Your task to perform on an android device: delete browsing data in the chrome app Image 0: 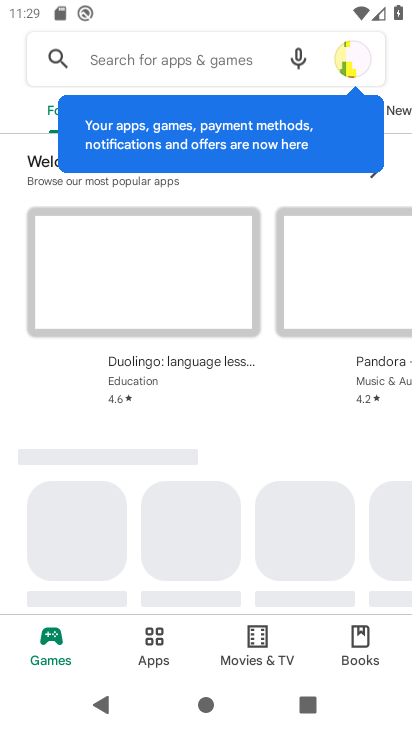
Step 0: press home button
Your task to perform on an android device: delete browsing data in the chrome app Image 1: 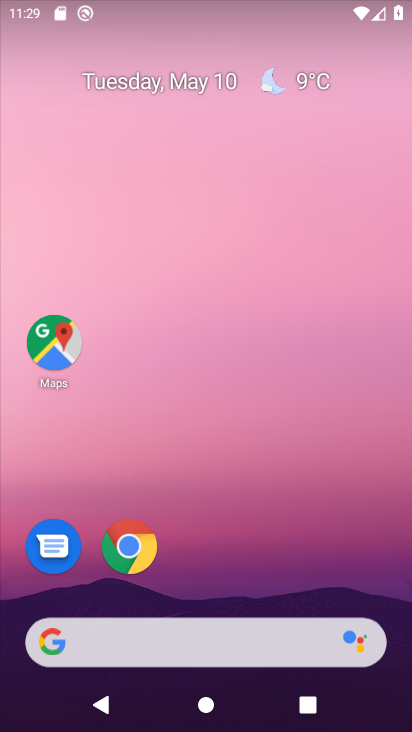
Step 1: drag from (367, 569) to (334, 221)
Your task to perform on an android device: delete browsing data in the chrome app Image 2: 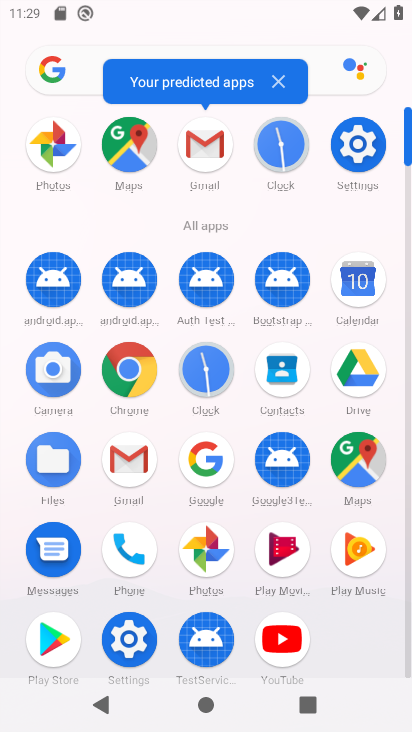
Step 2: click (122, 384)
Your task to perform on an android device: delete browsing data in the chrome app Image 3: 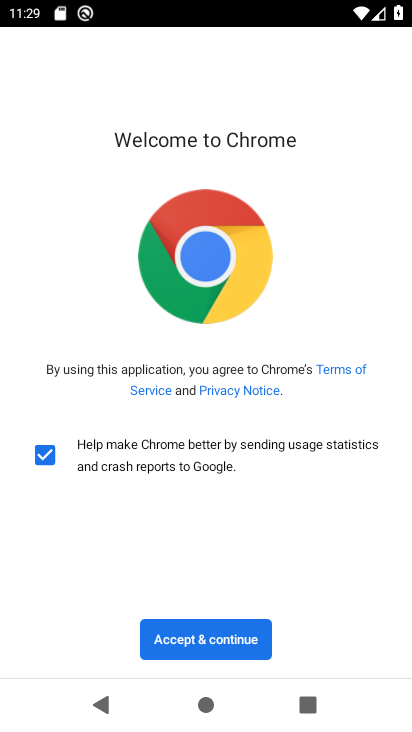
Step 3: click (219, 644)
Your task to perform on an android device: delete browsing data in the chrome app Image 4: 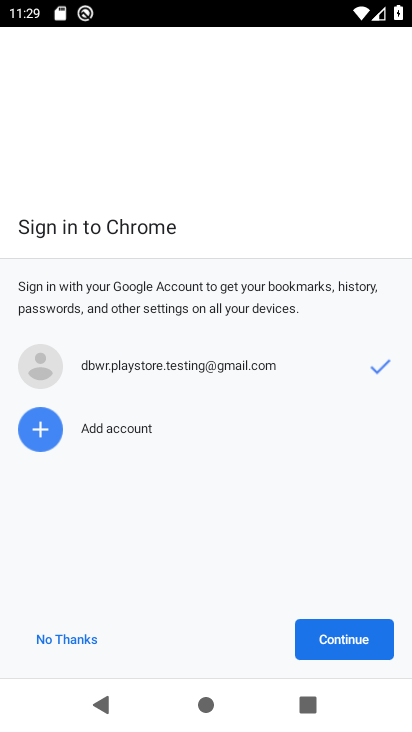
Step 4: click (350, 645)
Your task to perform on an android device: delete browsing data in the chrome app Image 5: 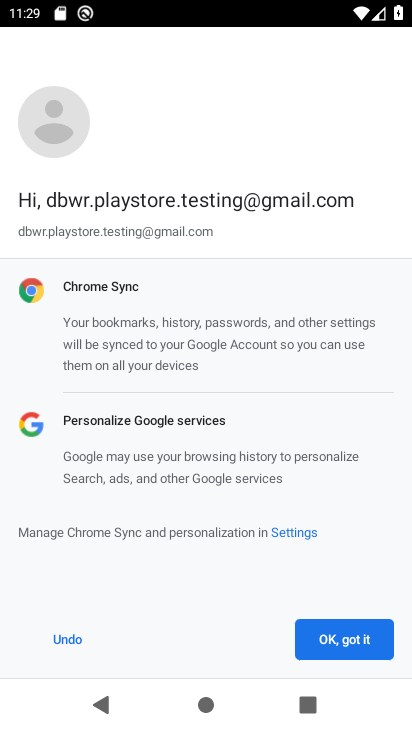
Step 5: click (349, 646)
Your task to perform on an android device: delete browsing data in the chrome app Image 6: 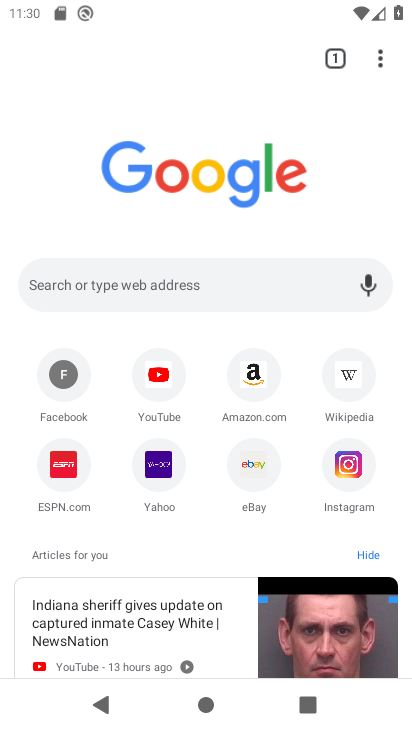
Step 6: task complete